Your task to perform on an android device: What is the recent news? Image 0: 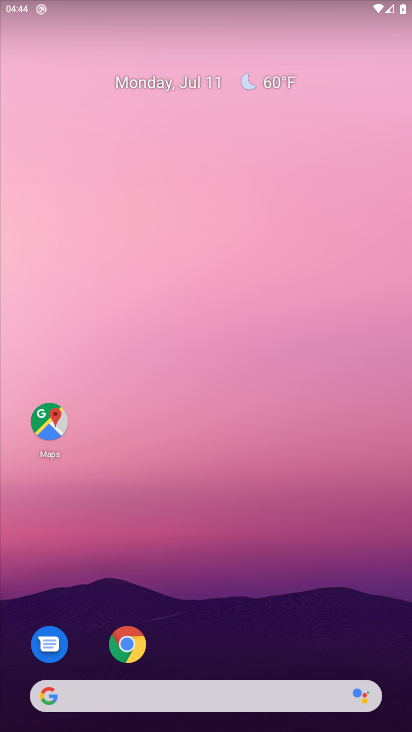
Step 0: drag from (196, 649) to (233, 214)
Your task to perform on an android device: What is the recent news? Image 1: 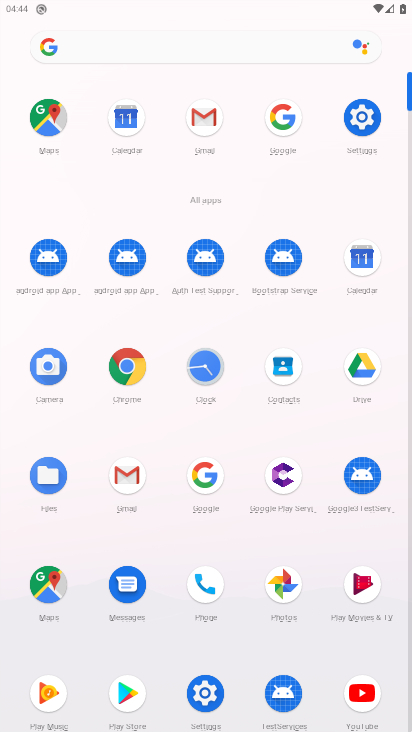
Step 1: click (280, 124)
Your task to perform on an android device: What is the recent news? Image 2: 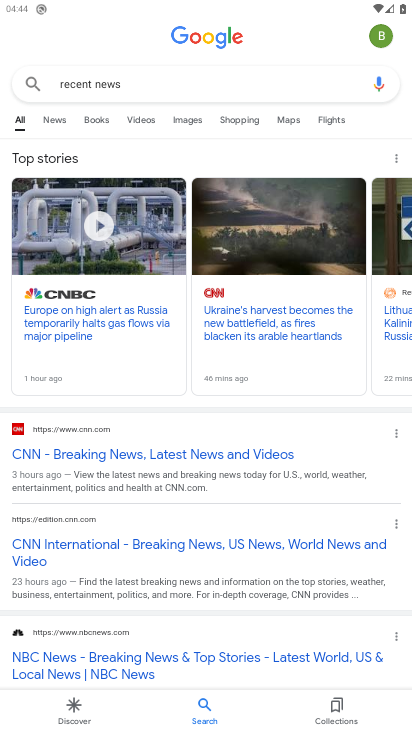
Step 2: task complete